Your task to perform on an android device: Open Yahoo.com Image 0: 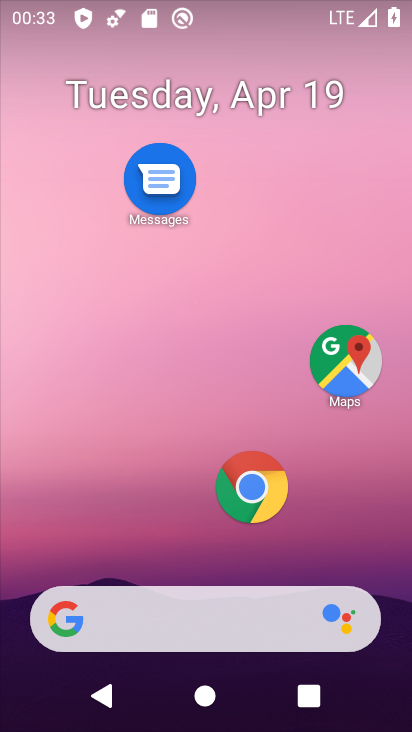
Step 0: click (261, 486)
Your task to perform on an android device: Open Yahoo.com Image 1: 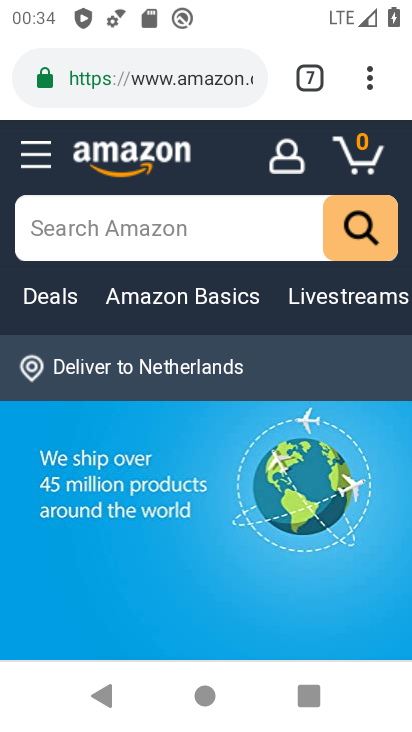
Step 1: click (368, 83)
Your task to perform on an android device: Open Yahoo.com Image 2: 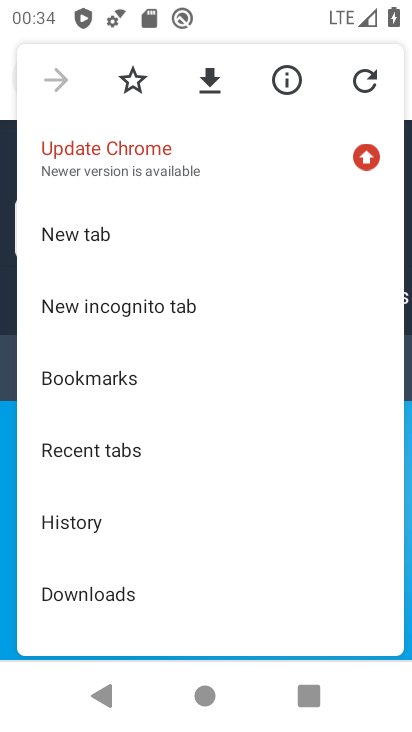
Step 2: click (78, 232)
Your task to perform on an android device: Open Yahoo.com Image 3: 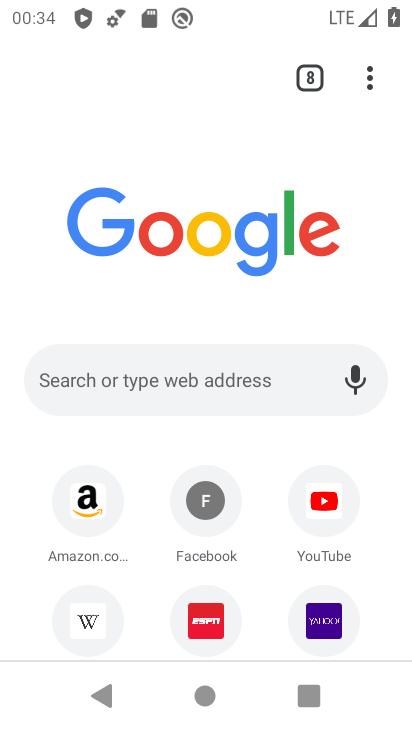
Step 3: drag from (382, 591) to (371, 315)
Your task to perform on an android device: Open Yahoo.com Image 4: 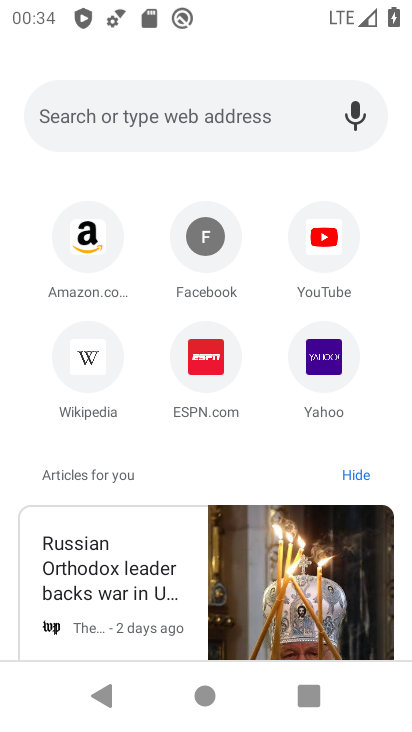
Step 4: click (319, 365)
Your task to perform on an android device: Open Yahoo.com Image 5: 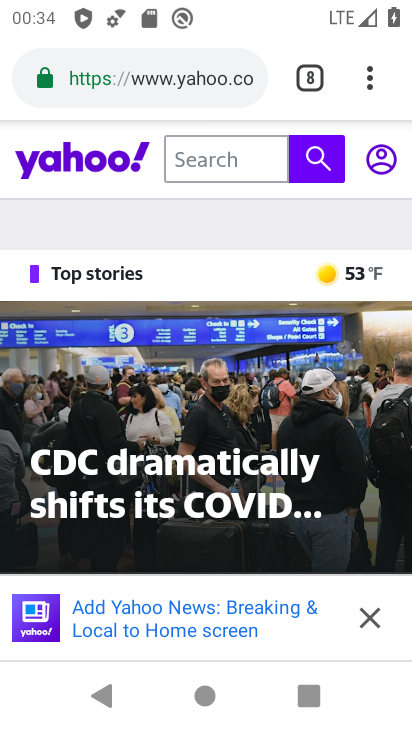
Step 5: task complete